Your task to perform on an android device: Open Youtube and go to "Your channel" Image 0: 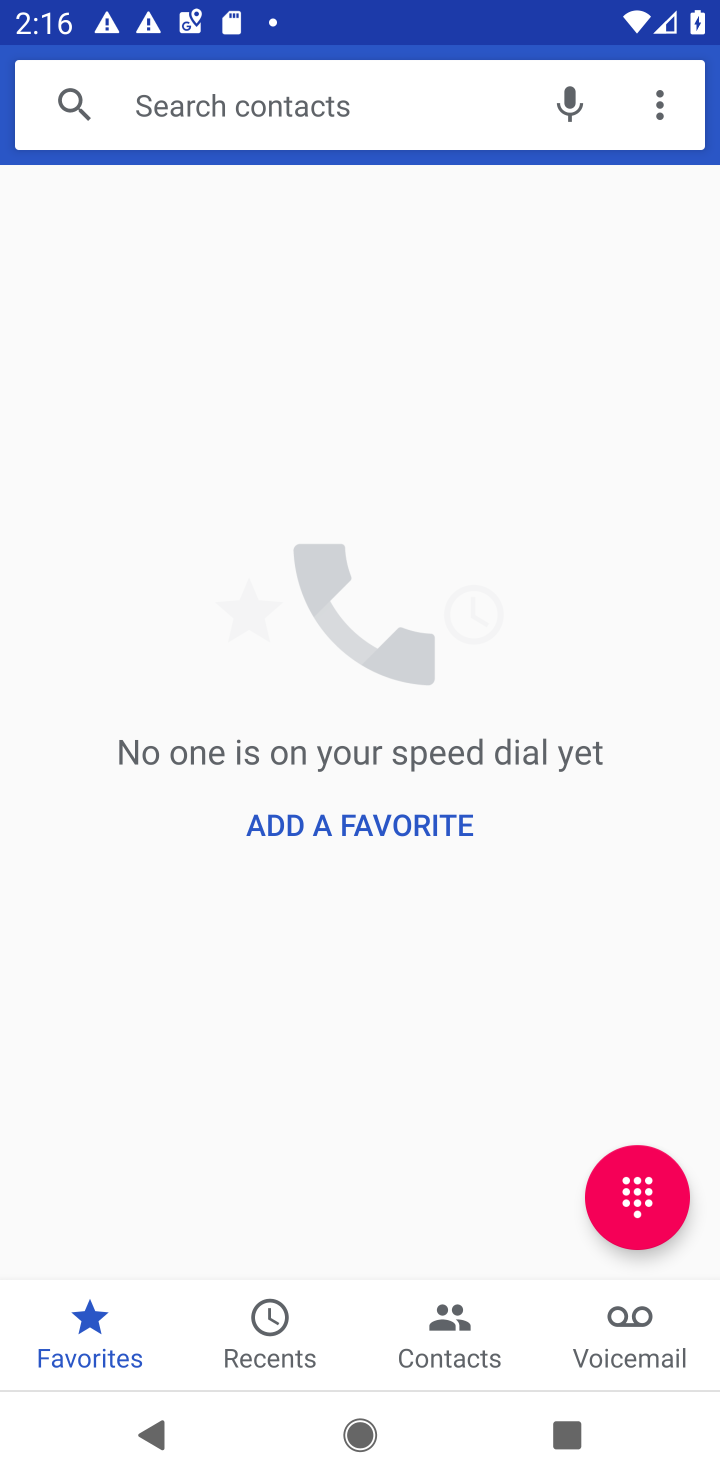
Step 0: press home button
Your task to perform on an android device: Open Youtube and go to "Your channel" Image 1: 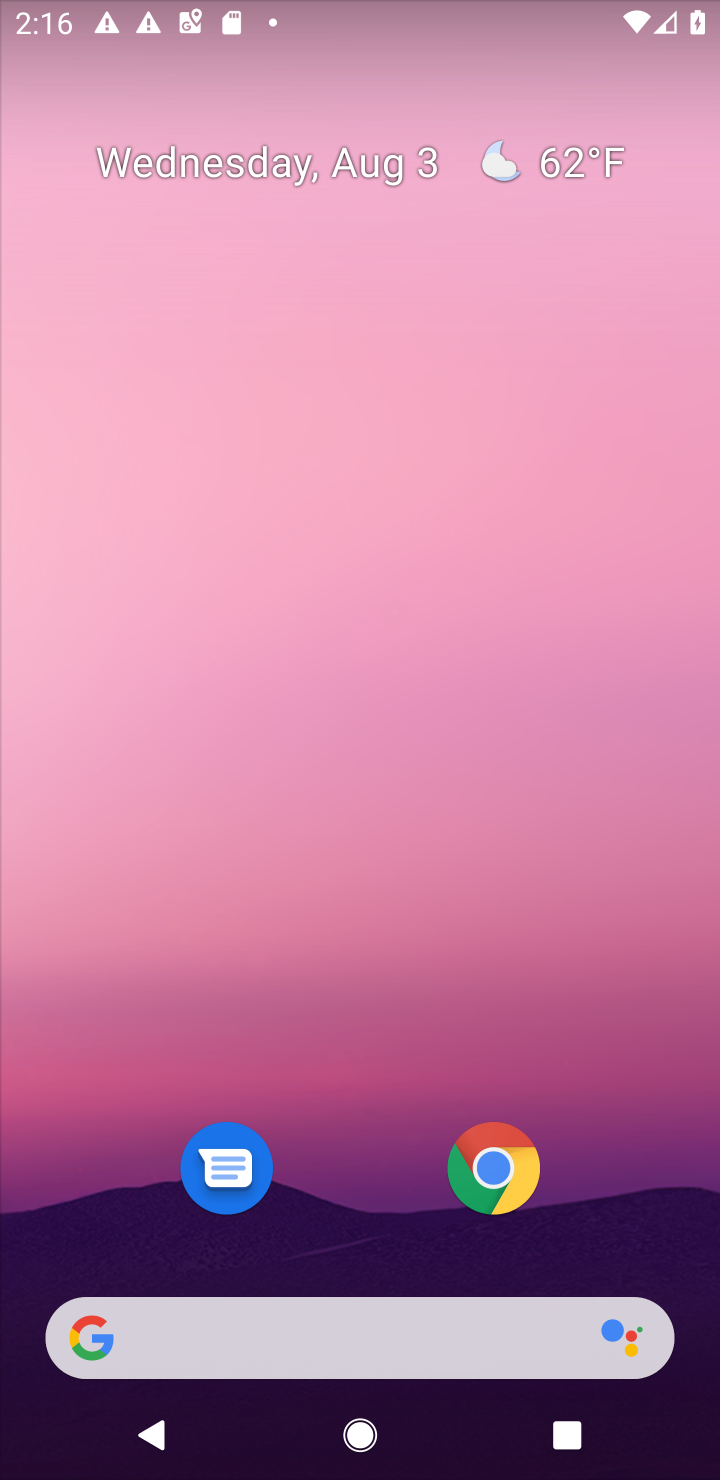
Step 1: drag from (664, 1263) to (600, 93)
Your task to perform on an android device: Open Youtube and go to "Your channel" Image 2: 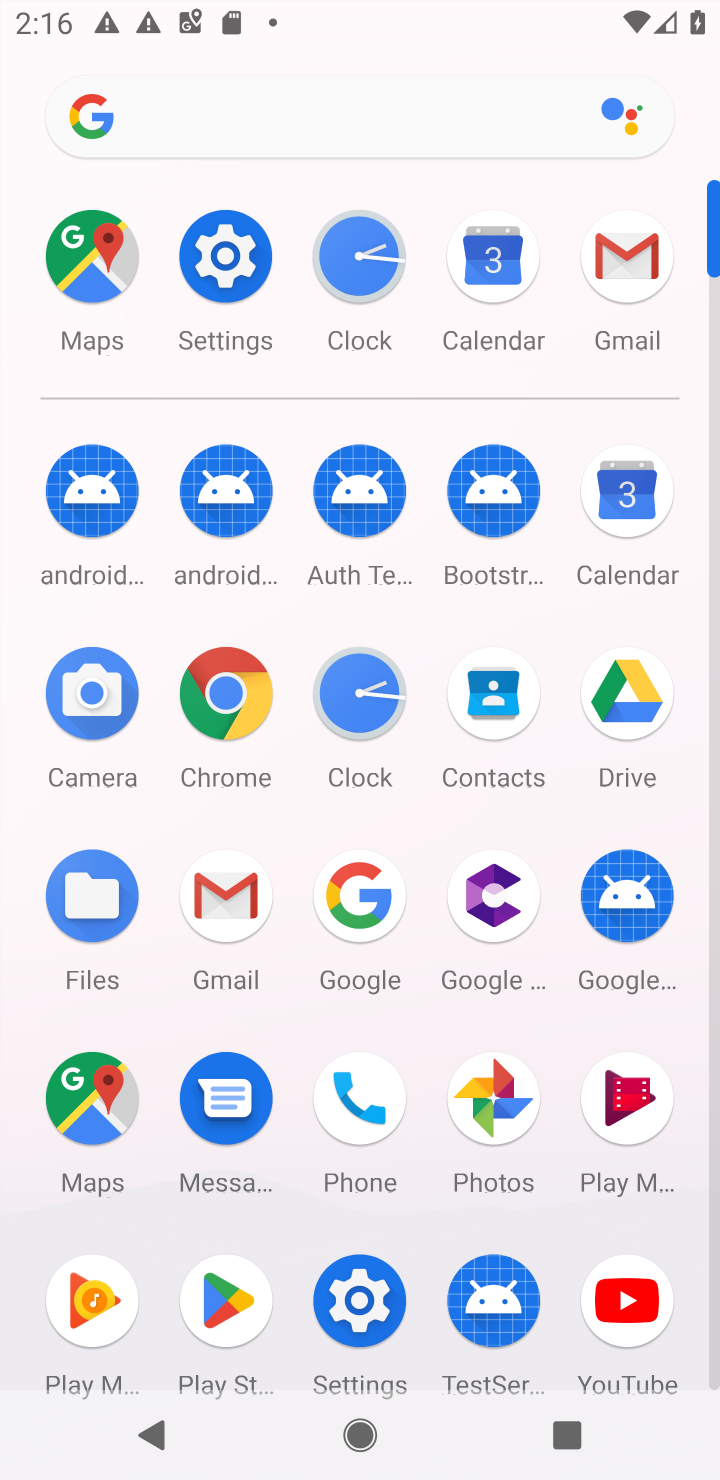
Step 2: click (625, 1297)
Your task to perform on an android device: Open Youtube and go to "Your channel" Image 3: 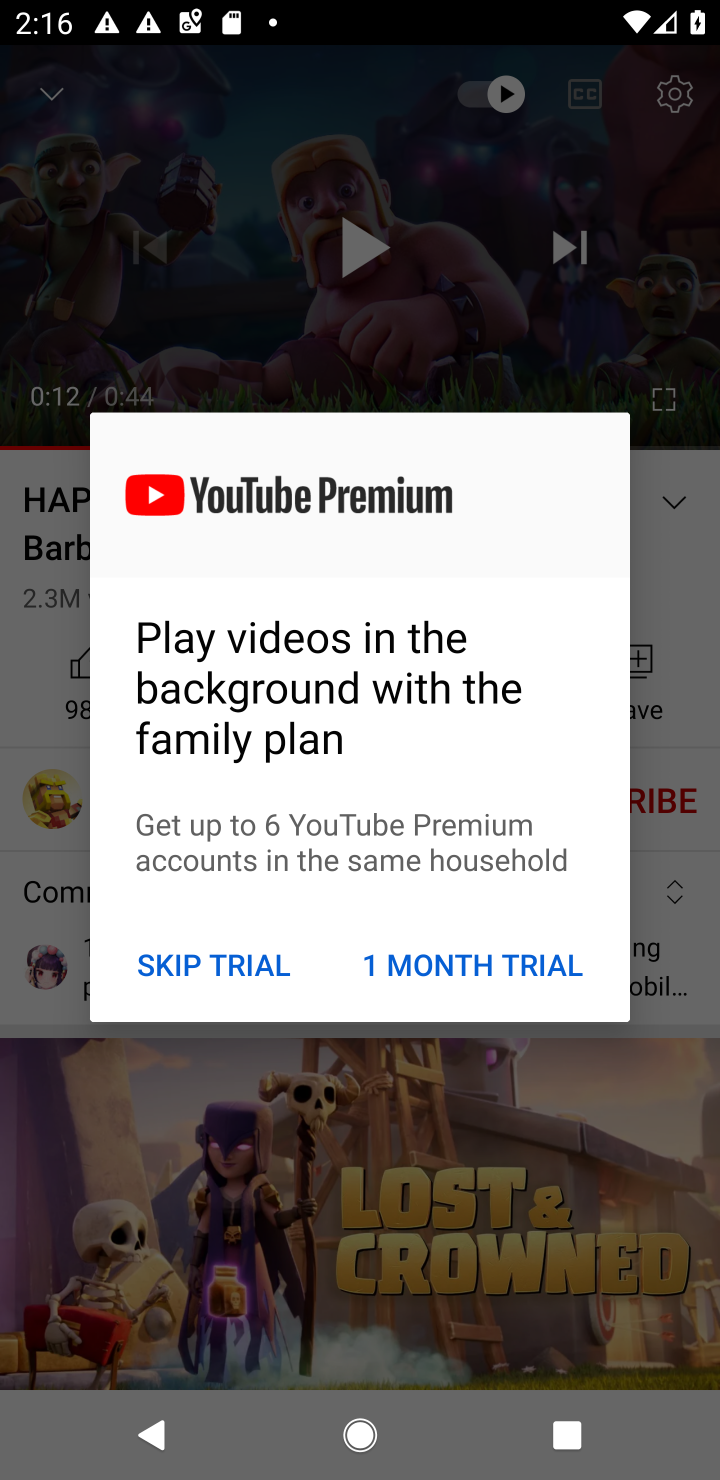
Step 3: click (186, 967)
Your task to perform on an android device: Open Youtube and go to "Your channel" Image 4: 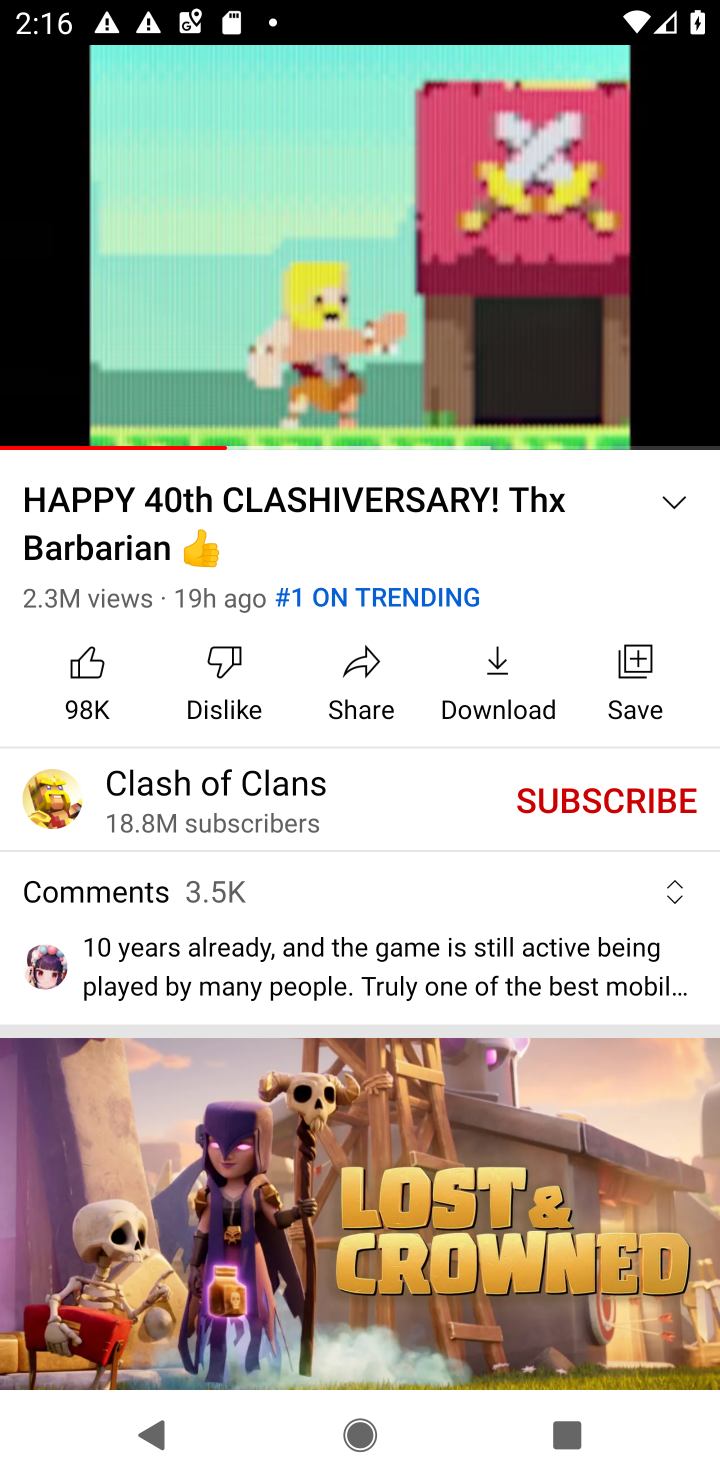
Step 4: click (366, 232)
Your task to perform on an android device: Open Youtube and go to "Your channel" Image 5: 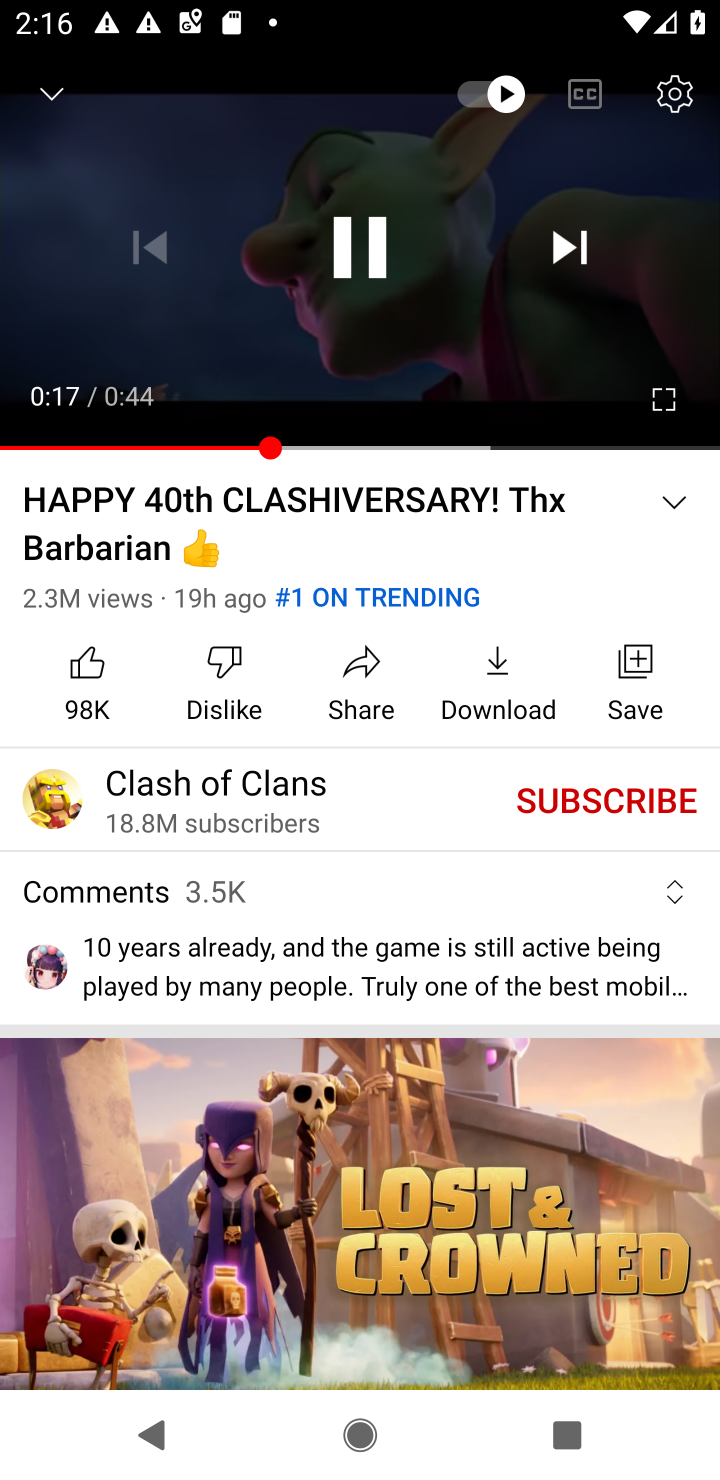
Step 5: click (366, 232)
Your task to perform on an android device: Open Youtube and go to "Your channel" Image 6: 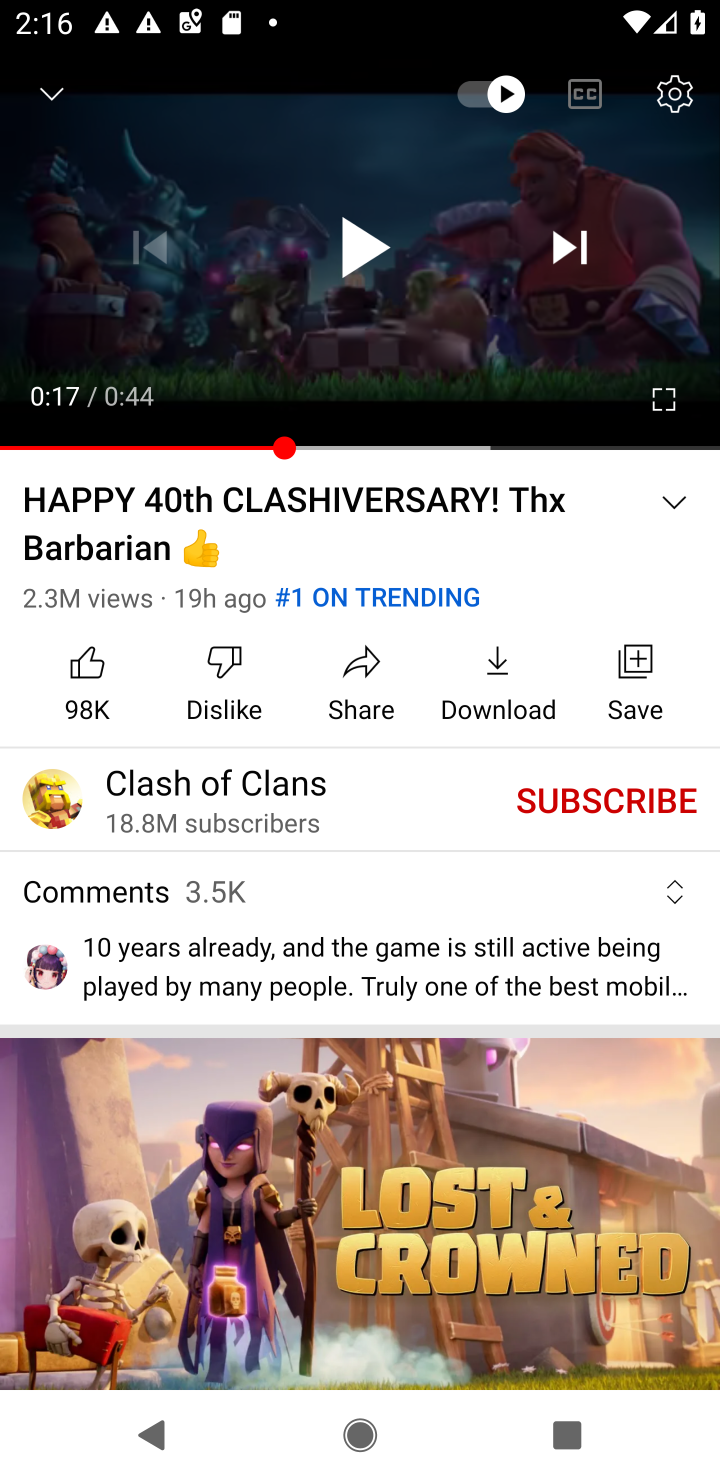
Step 6: press back button
Your task to perform on an android device: Open Youtube and go to "Your channel" Image 7: 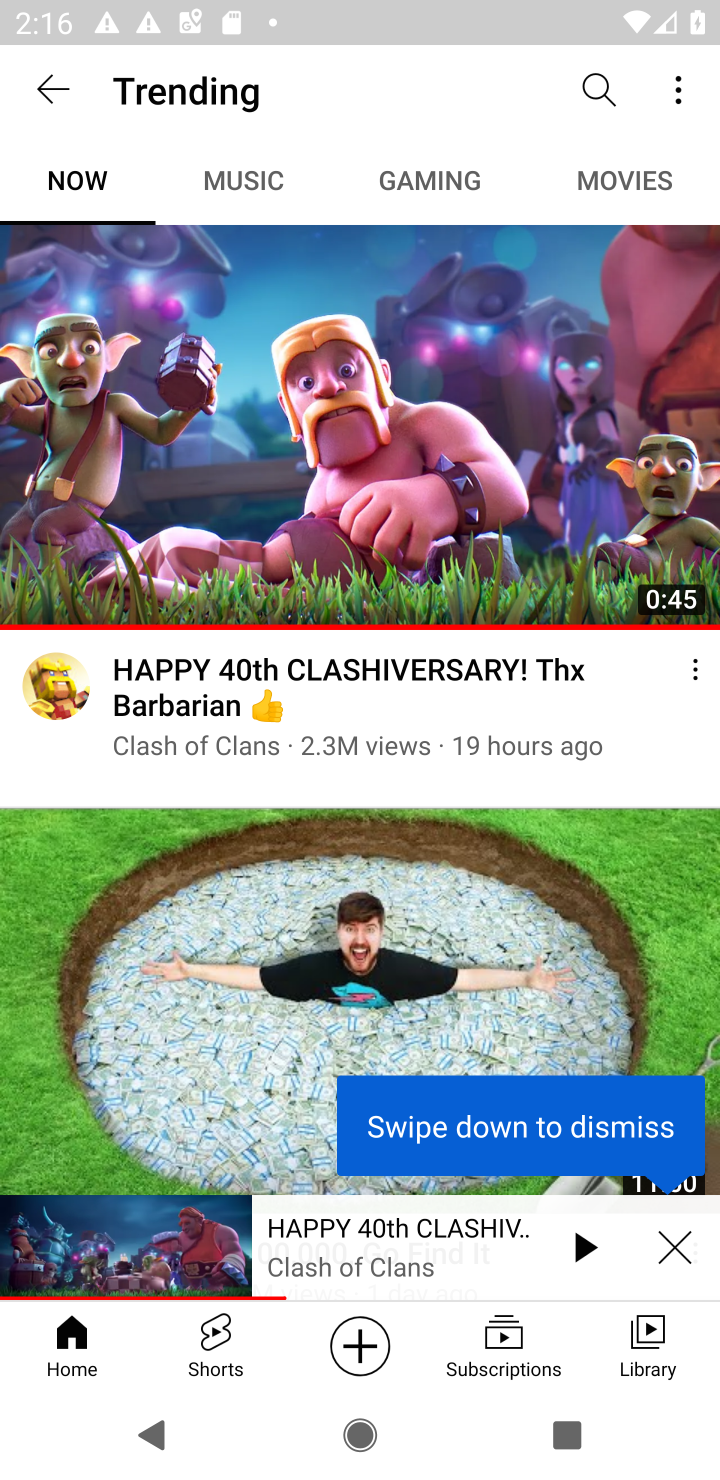
Step 7: click (66, 1340)
Your task to perform on an android device: Open Youtube and go to "Your channel" Image 8: 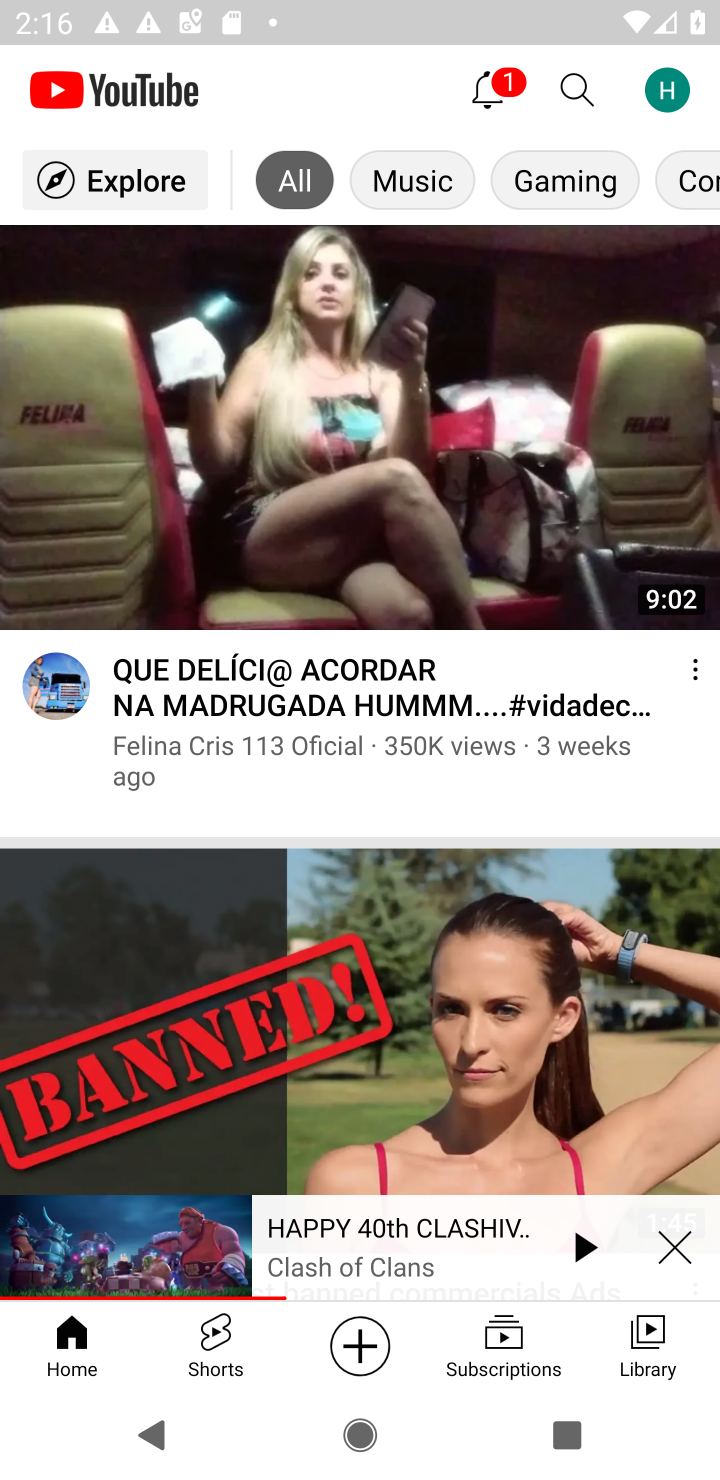
Step 8: click (665, 92)
Your task to perform on an android device: Open Youtube and go to "Your channel" Image 9: 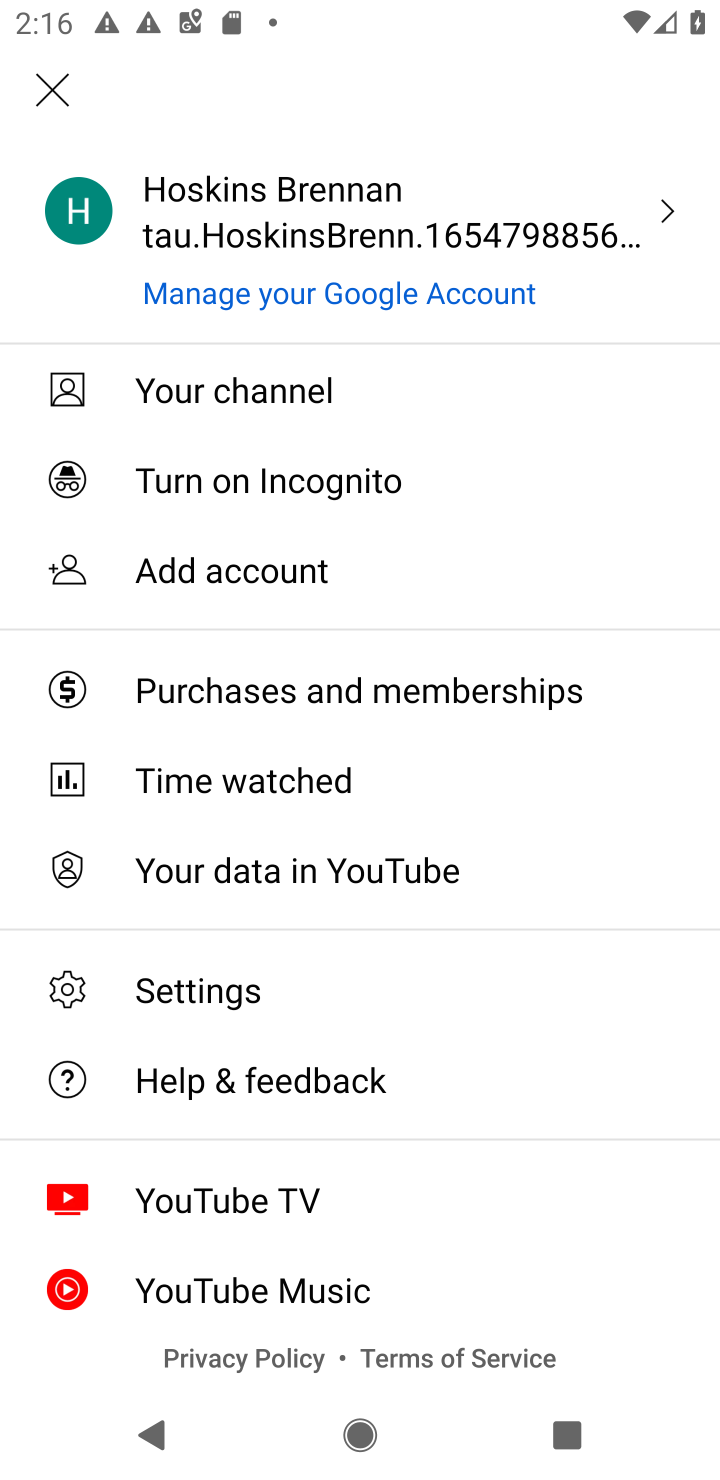
Step 9: click (184, 381)
Your task to perform on an android device: Open Youtube and go to "Your channel" Image 10: 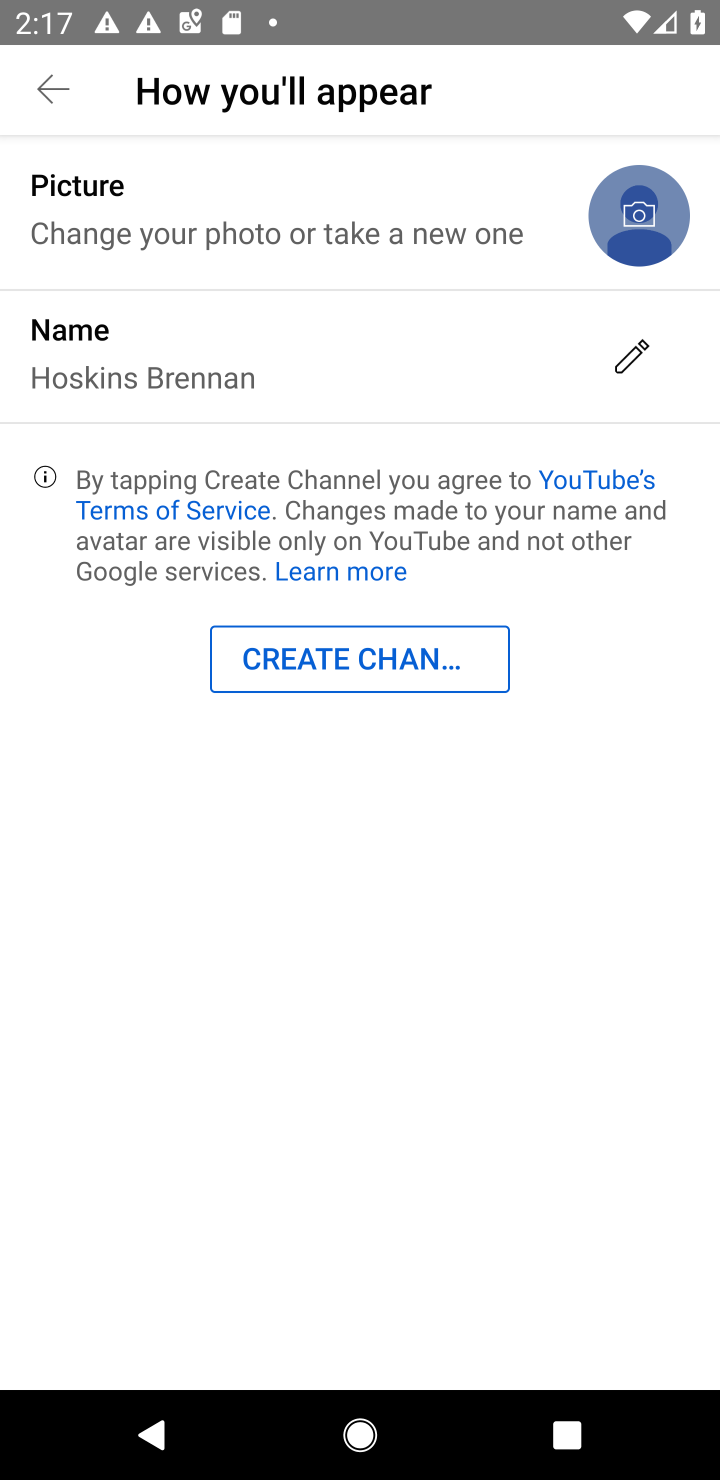
Step 10: task complete